Your task to perform on an android device: Open the calendar app, open the side menu, and click the "Day" option Image 0: 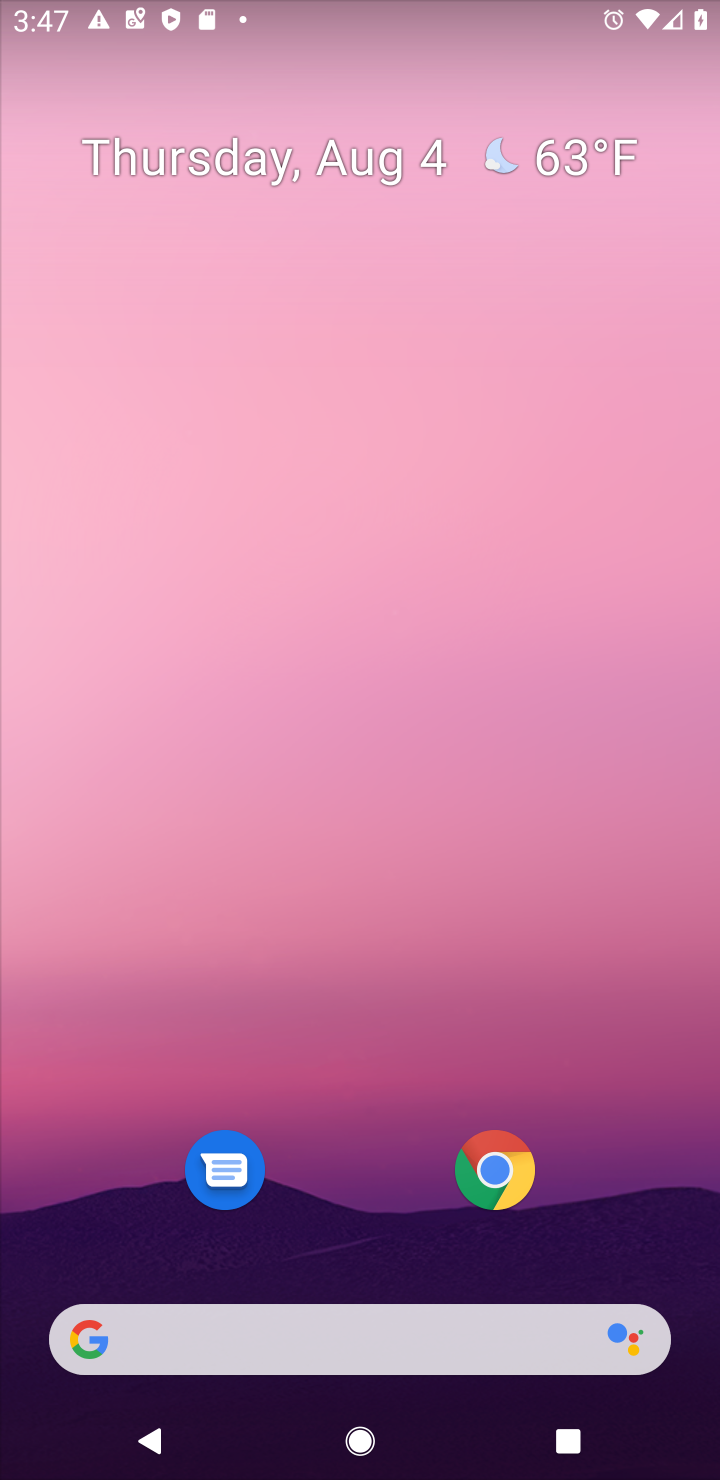
Step 0: drag from (629, 1230) to (552, 371)
Your task to perform on an android device: Open the calendar app, open the side menu, and click the "Day" option Image 1: 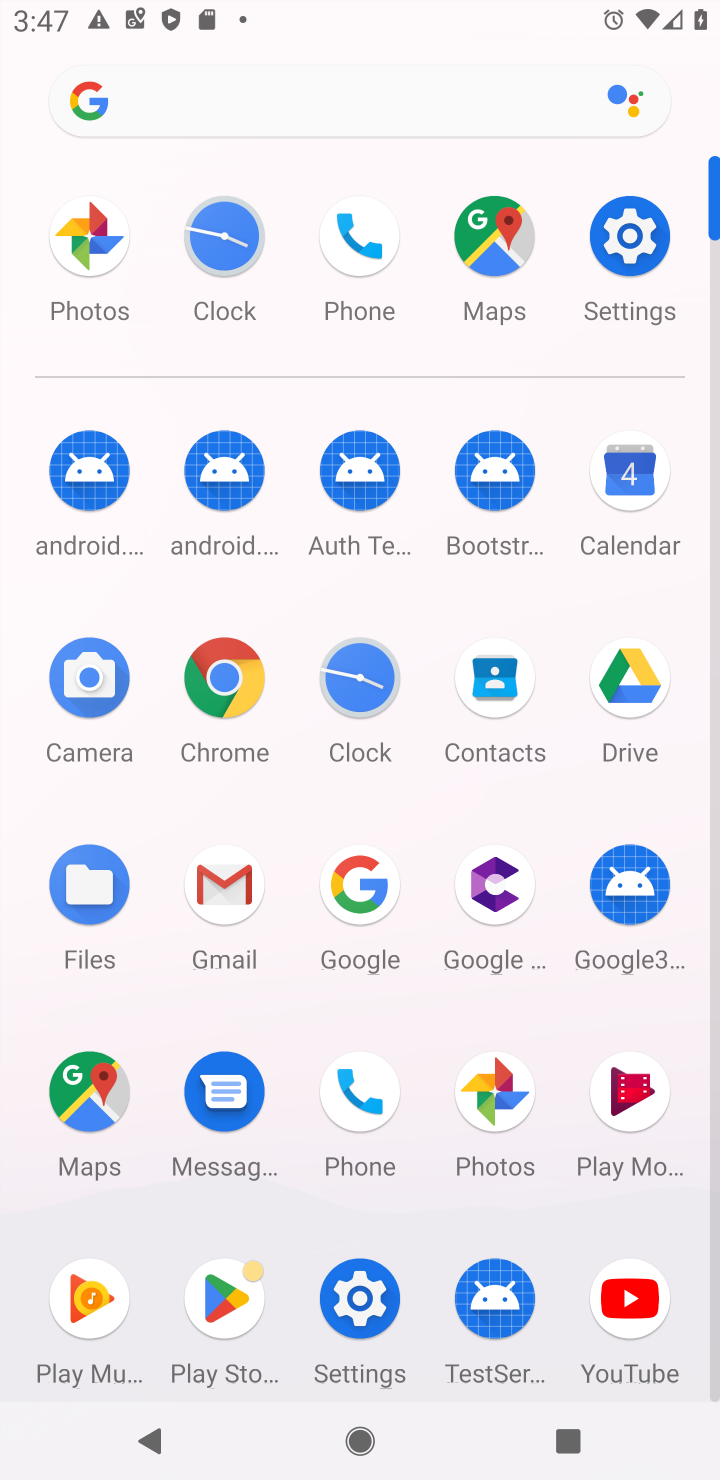
Step 1: click (622, 477)
Your task to perform on an android device: Open the calendar app, open the side menu, and click the "Day" option Image 2: 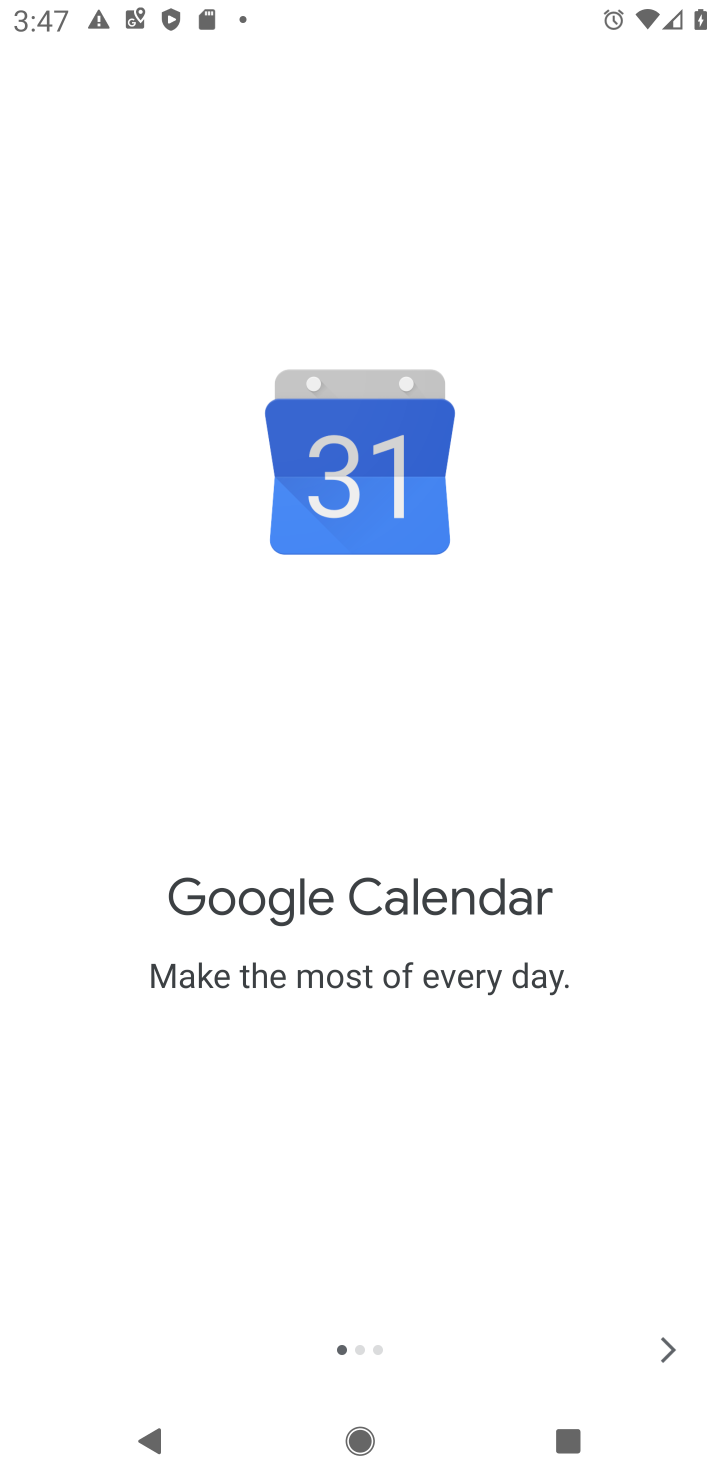
Step 2: click (660, 1343)
Your task to perform on an android device: Open the calendar app, open the side menu, and click the "Day" option Image 3: 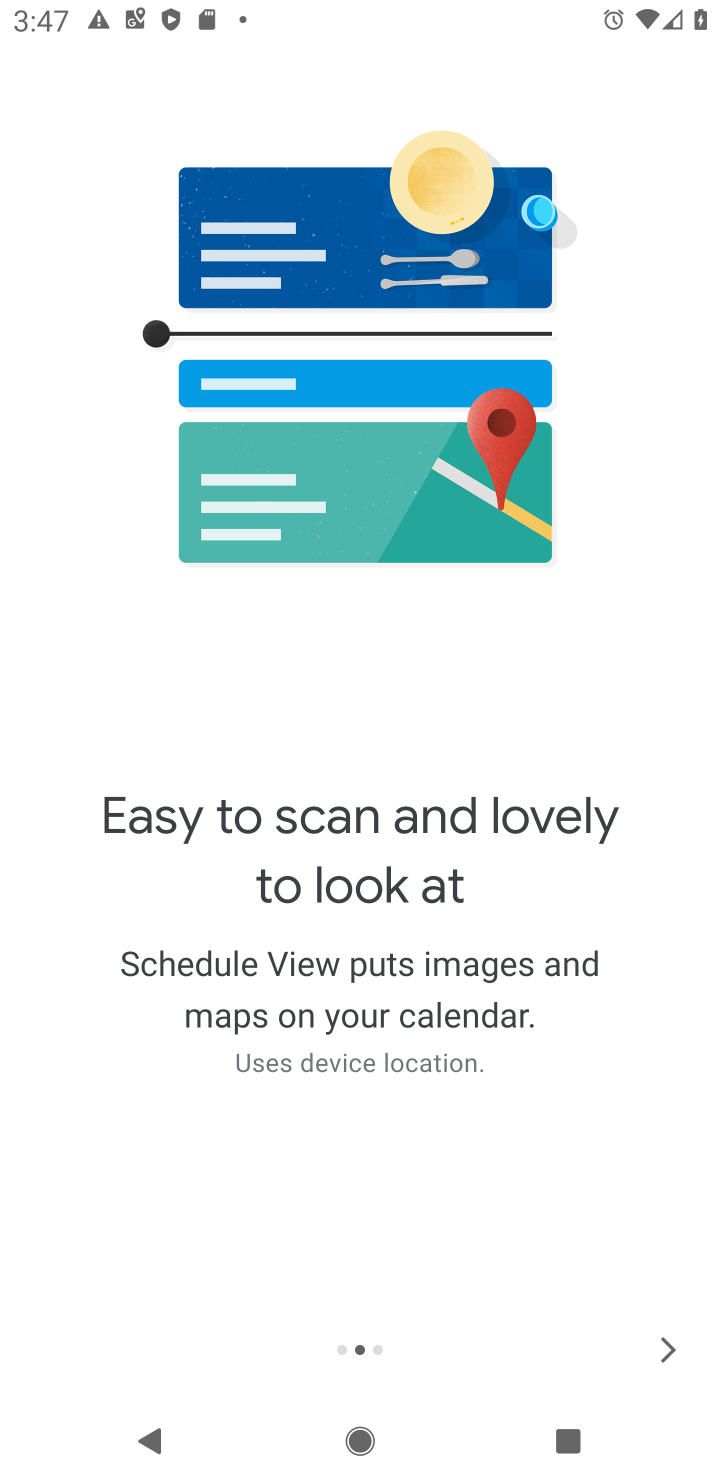
Step 3: click (658, 1346)
Your task to perform on an android device: Open the calendar app, open the side menu, and click the "Day" option Image 4: 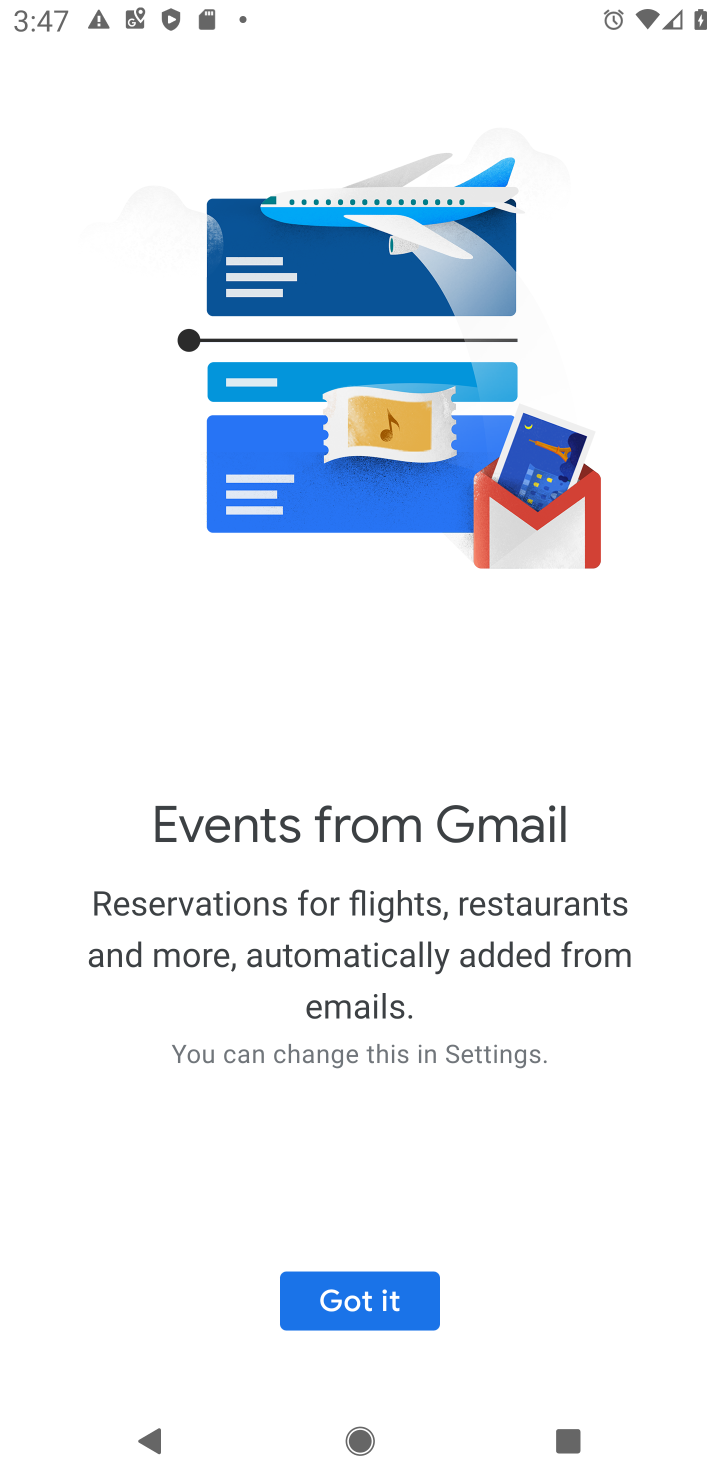
Step 4: click (342, 1298)
Your task to perform on an android device: Open the calendar app, open the side menu, and click the "Day" option Image 5: 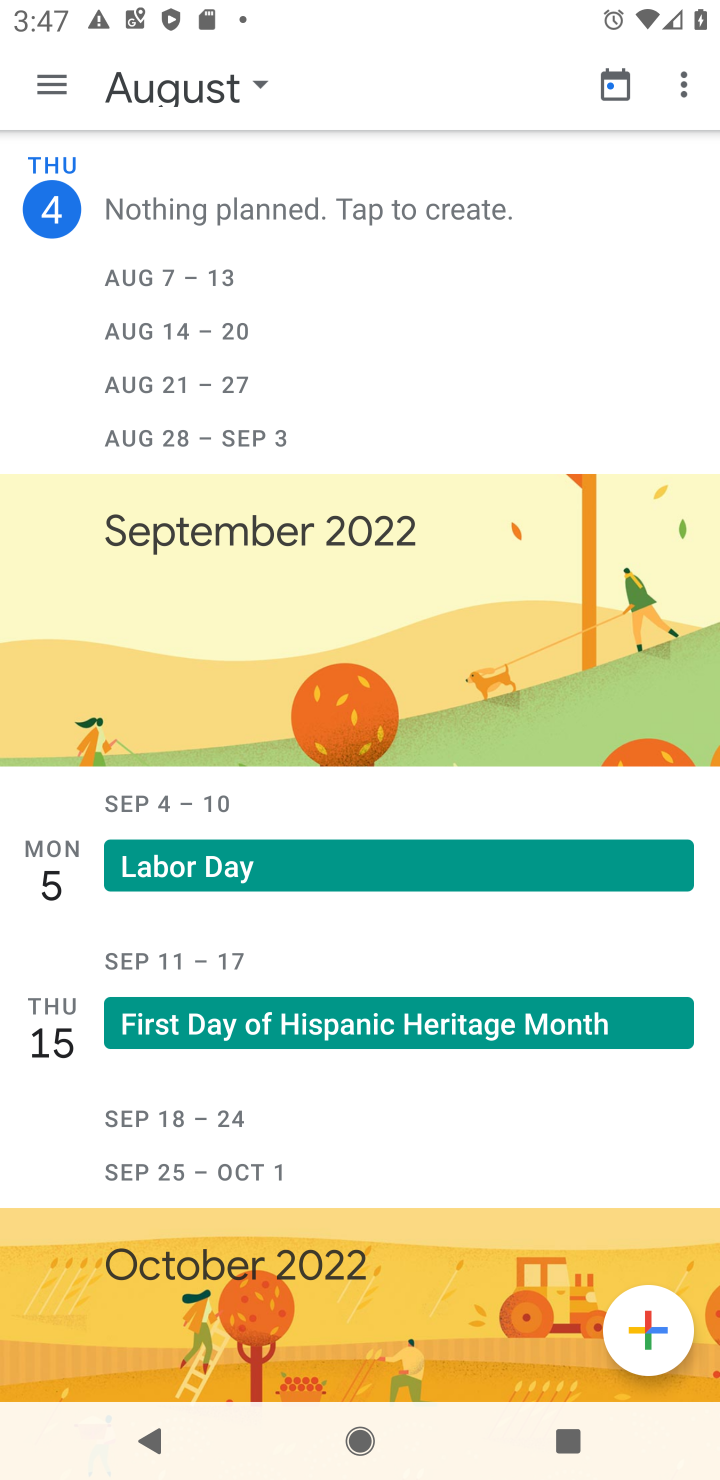
Step 5: click (44, 97)
Your task to perform on an android device: Open the calendar app, open the side menu, and click the "Day" option Image 6: 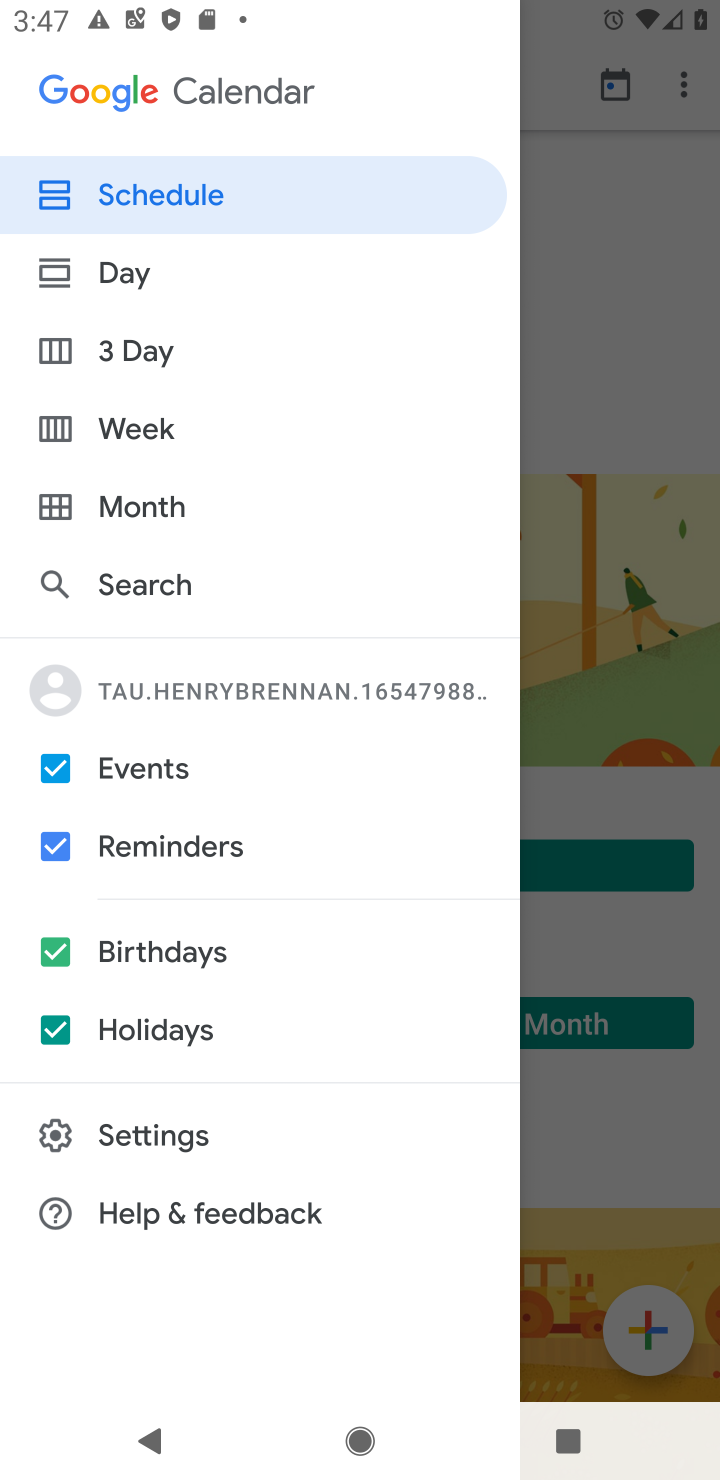
Step 6: click (124, 274)
Your task to perform on an android device: Open the calendar app, open the side menu, and click the "Day" option Image 7: 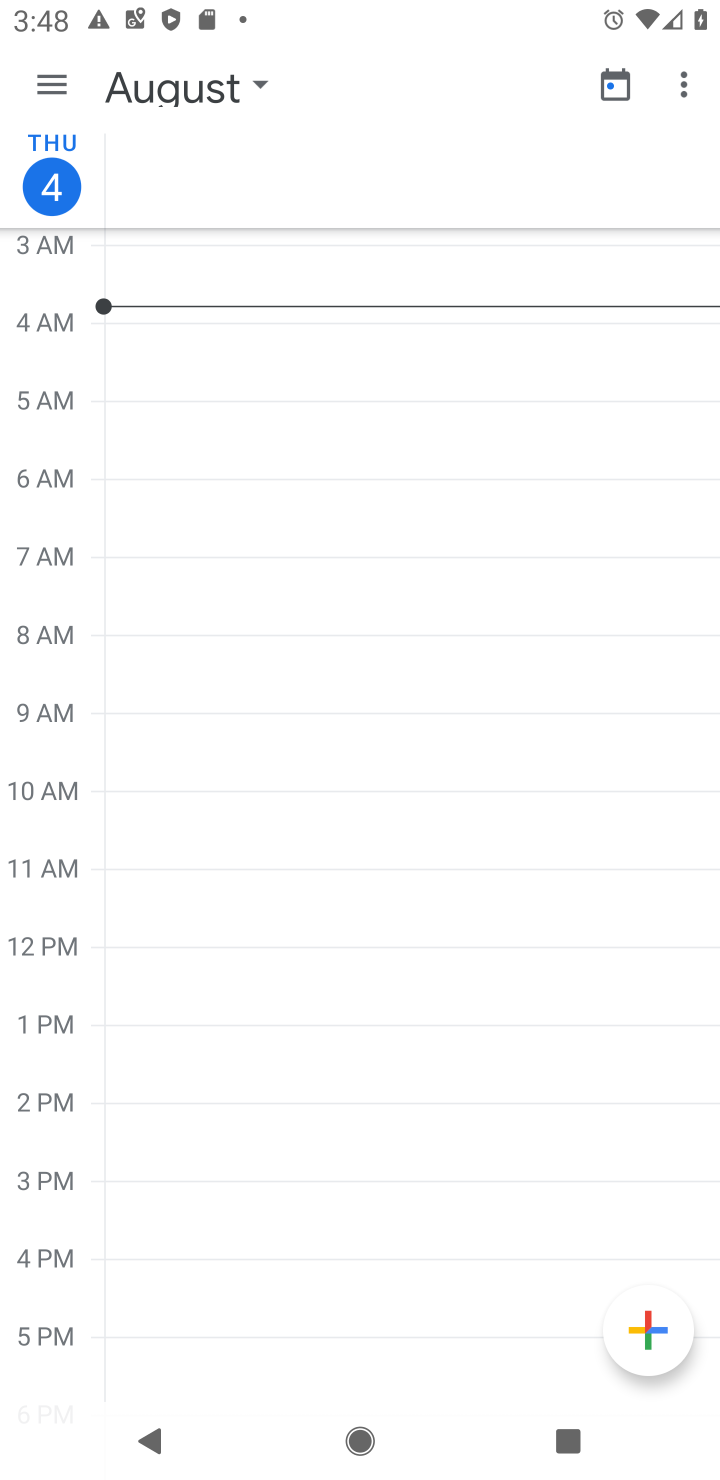
Step 7: task complete